Your task to perform on an android device: find which apps use the phone's location Image 0: 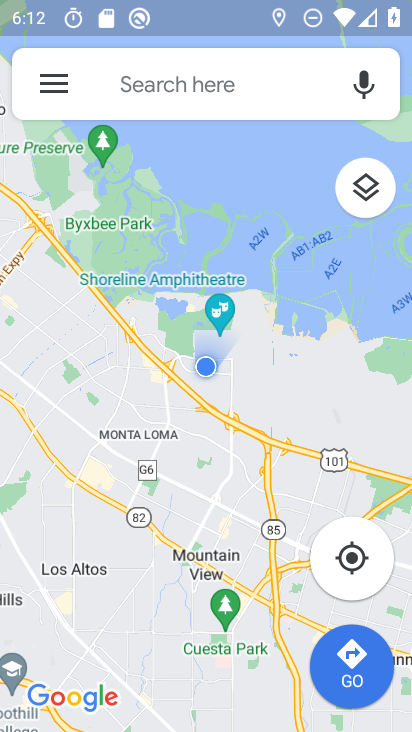
Step 0: press back button
Your task to perform on an android device: find which apps use the phone's location Image 1: 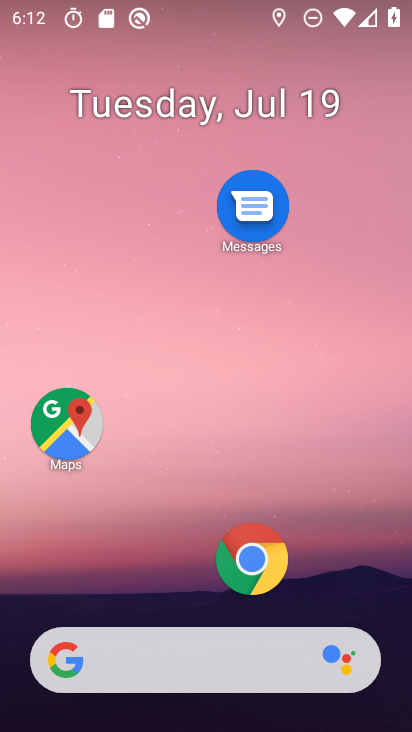
Step 1: drag from (139, 601) to (244, 95)
Your task to perform on an android device: find which apps use the phone's location Image 2: 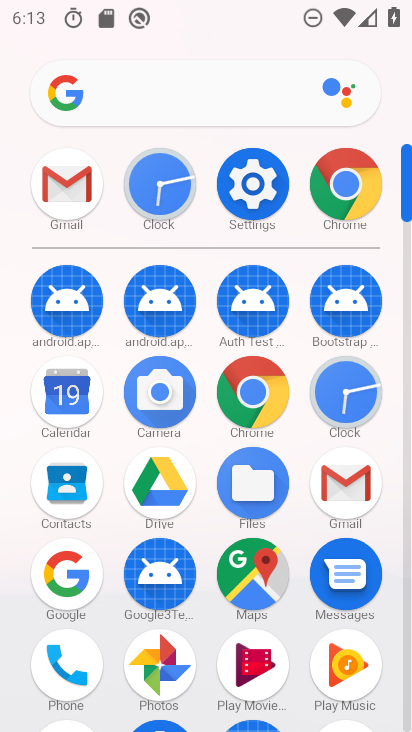
Step 2: click (243, 185)
Your task to perform on an android device: find which apps use the phone's location Image 3: 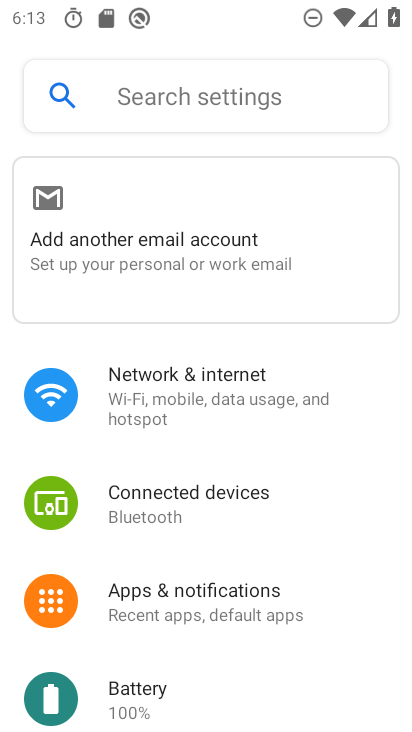
Step 3: drag from (216, 661) to (207, 121)
Your task to perform on an android device: find which apps use the phone's location Image 4: 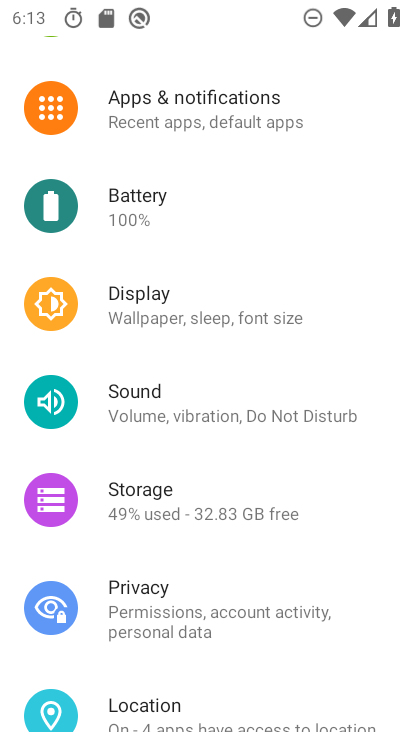
Step 4: click (164, 703)
Your task to perform on an android device: find which apps use the phone's location Image 5: 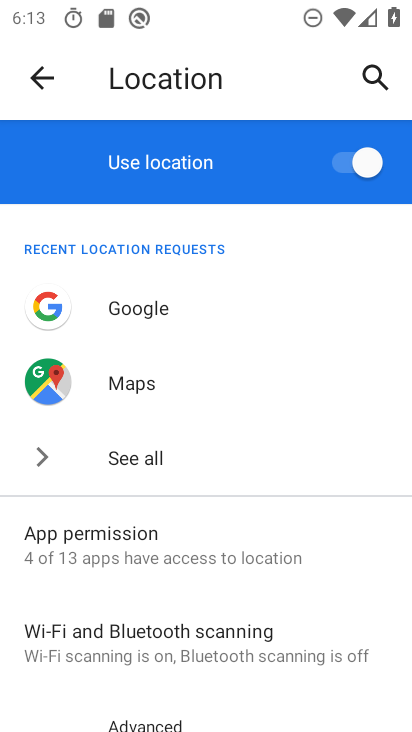
Step 5: click (131, 530)
Your task to perform on an android device: find which apps use the phone's location Image 6: 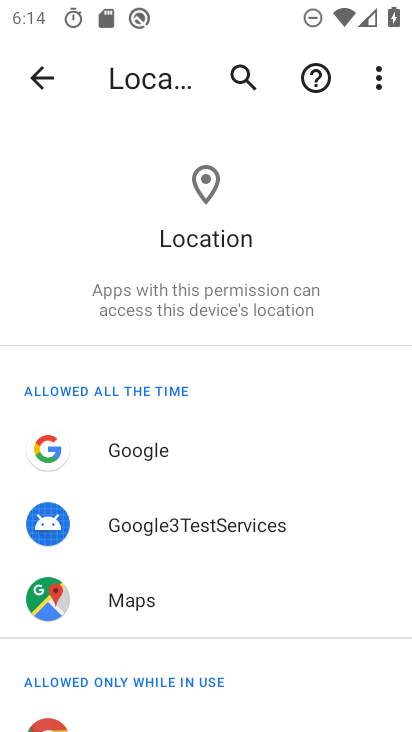
Step 6: task complete